Your task to perform on an android device: change the upload size in google photos Image 0: 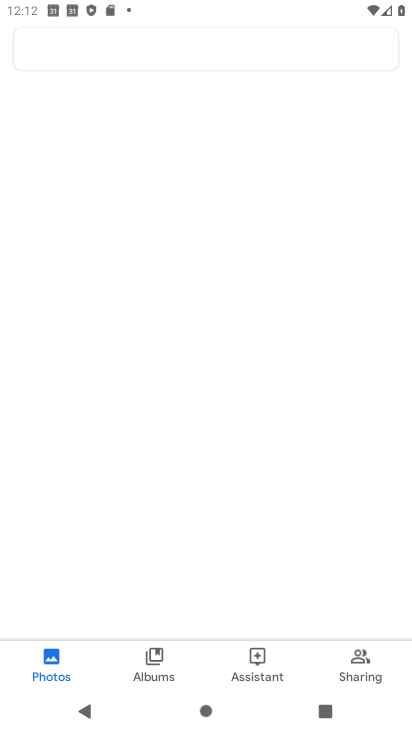
Step 0: press back button
Your task to perform on an android device: change the upload size in google photos Image 1: 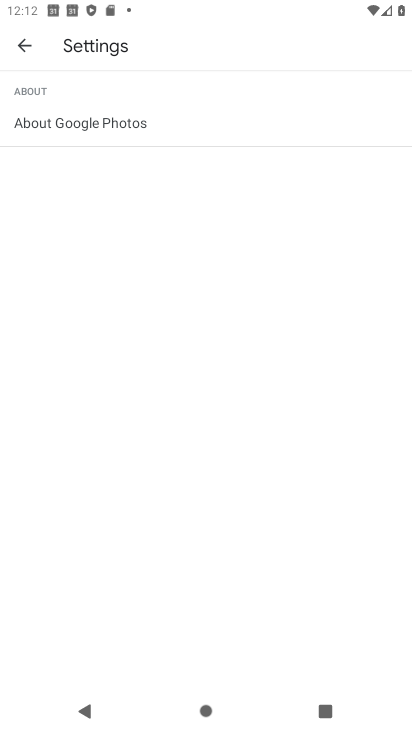
Step 1: press back button
Your task to perform on an android device: change the upload size in google photos Image 2: 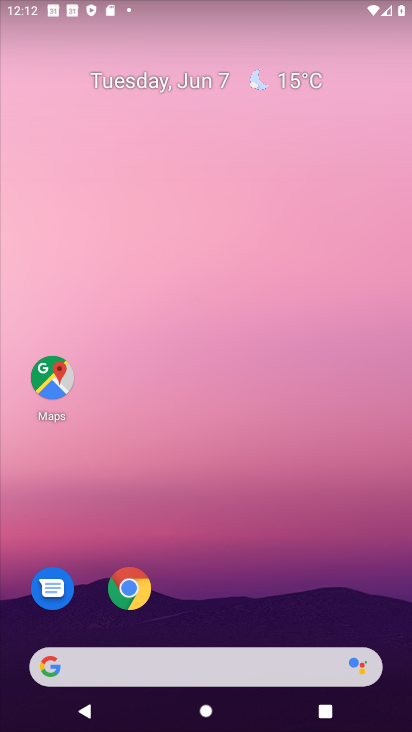
Step 2: drag from (186, 567) to (301, 23)
Your task to perform on an android device: change the upload size in google photos Image 3: 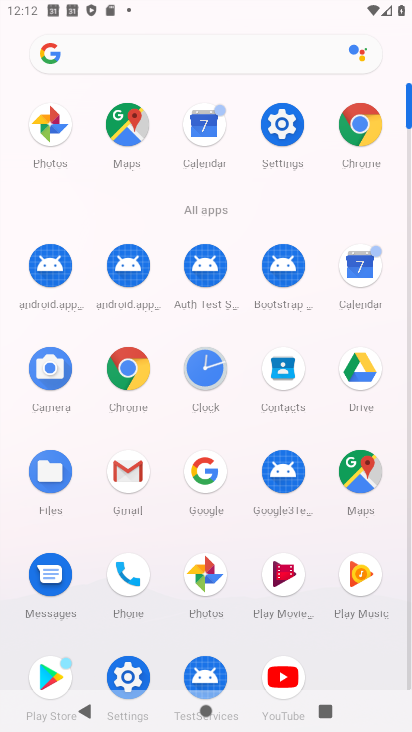
Step 3: click (202, 572)
Your task to perform on an android device: change the upload size in google photos Image 4: 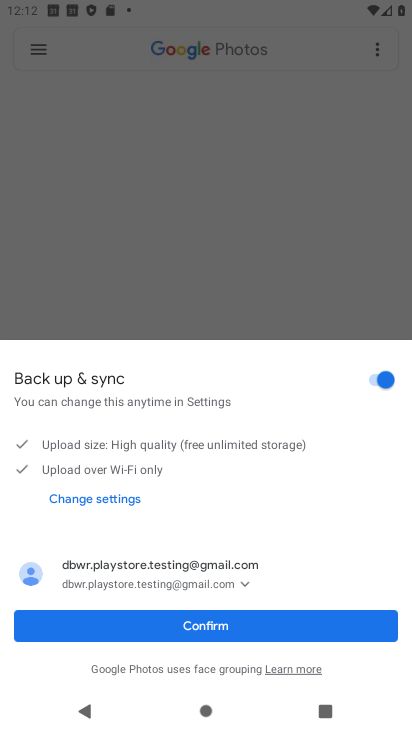
Step 4: click (179, 622)
Your task to perform on an android device: change the upload size in google photos Image 5: 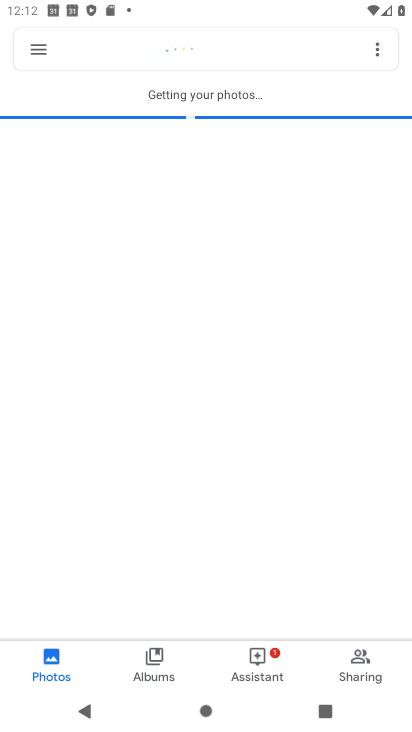
Step 5: click (33, 54)
Your task to perform on an android device: change the upload size in google photos Image 6: 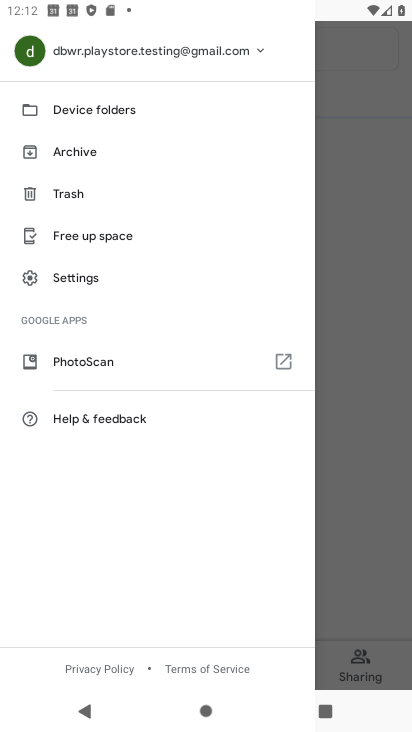
Step 6: click (104, 288)
Your task to perform on an android device: change the upload size in google photos Image 7: 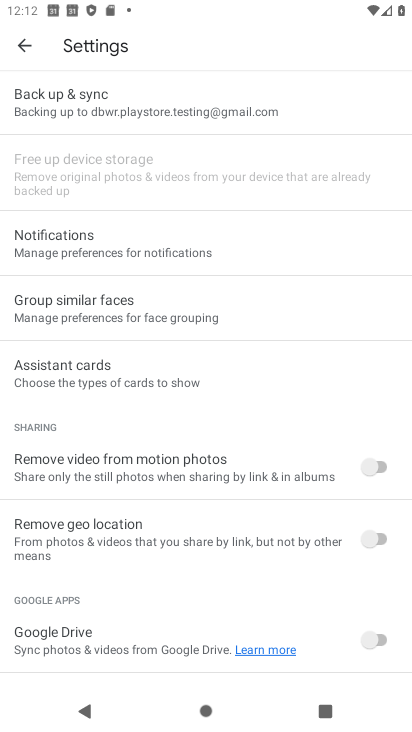
Step 7: click (84, 103)
Your task to perform on an android device: change the upload size in google photos Image 8: 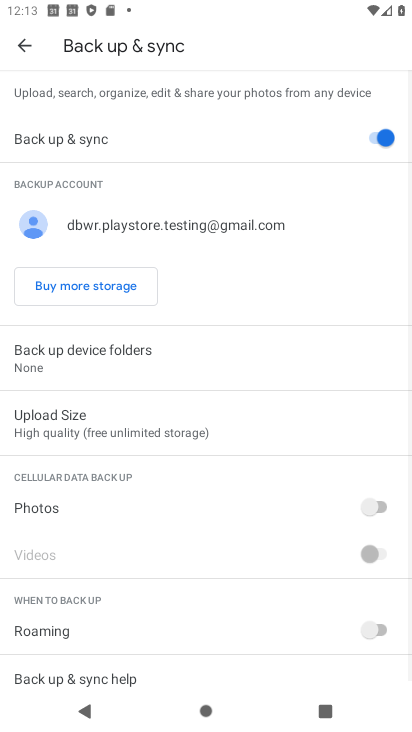
Step 8: click (170, 426)
Your task to perform on an android device: change the upload size in google photos Image 9: 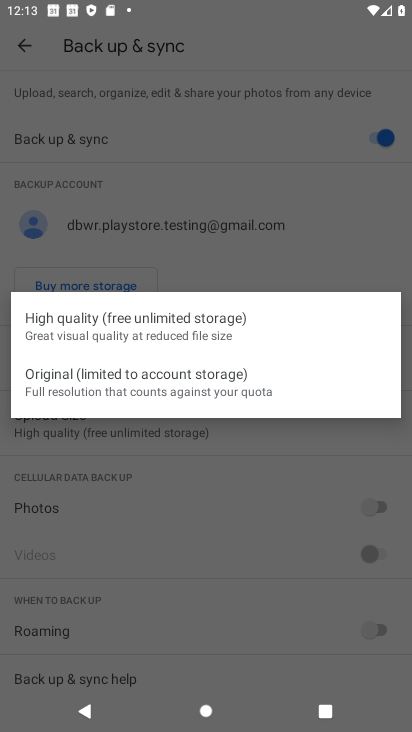
Step 9: click (82, 382)
Your task to perform on an android device: change the upload size in google photos Image 10: 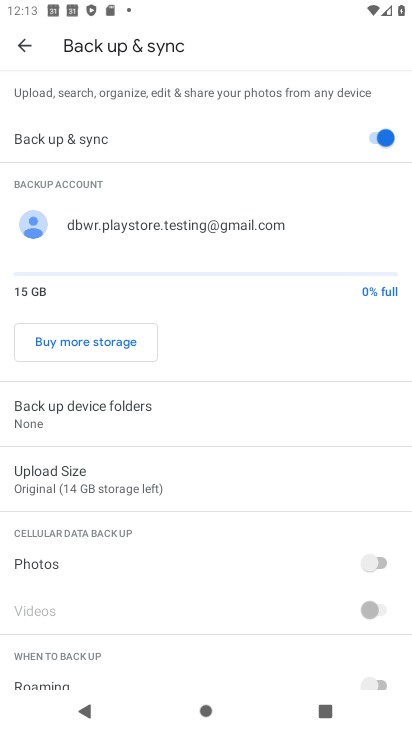
Step 10: task complete